Your task to perform on an android device: Turn off the flashlight Image 0: 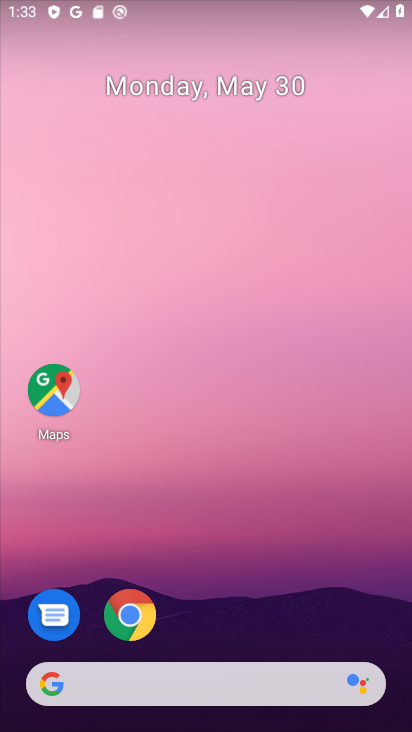
Step 0: drag from (317, 4) to (316, 553)
Your task to perform on an android device: Turn off the flashlight Image 1: 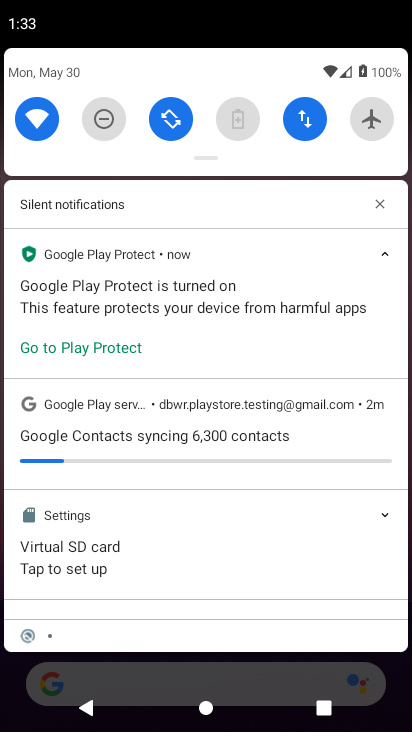
Step 1: drag from (273, 141) to (274, 667)
Your task to perform on an android device: Turn off the flashlight Image 2: 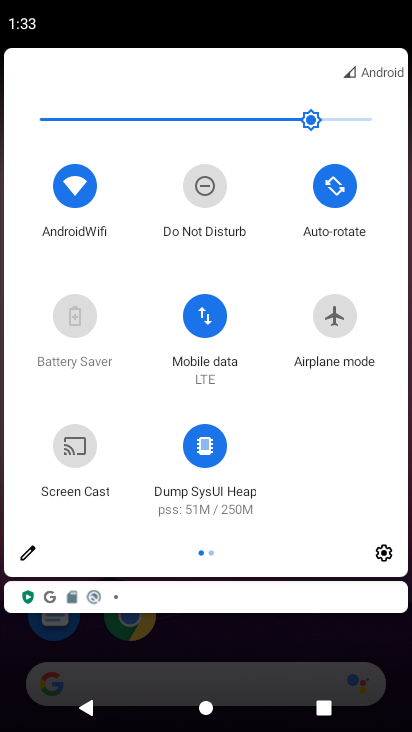
Step 2: click (29, 555)
Your task to perform on an android device: Turn off the flashlight Image 3: 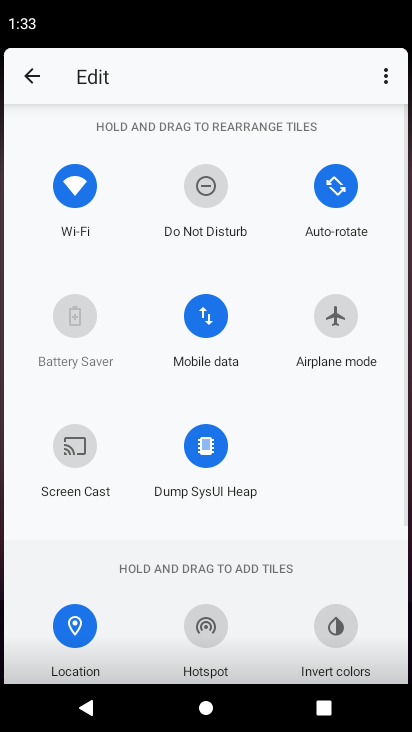
Step 3: task complete